Your task to perform on an android device: When is my next meeting? Image 0: 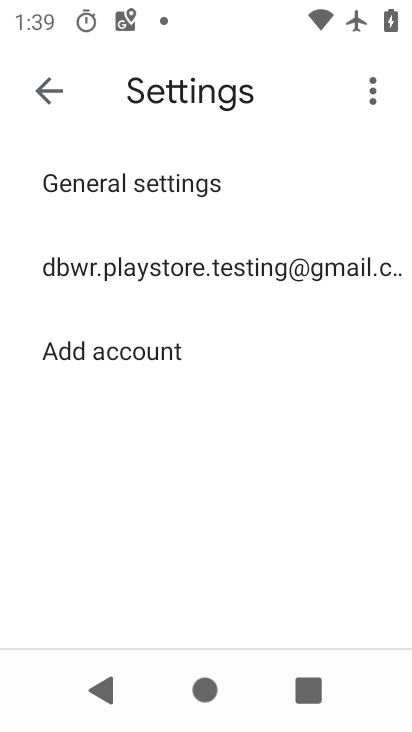
Step 0: press home button
Your task to perform on an android device: When is my next meeting? Image 1: 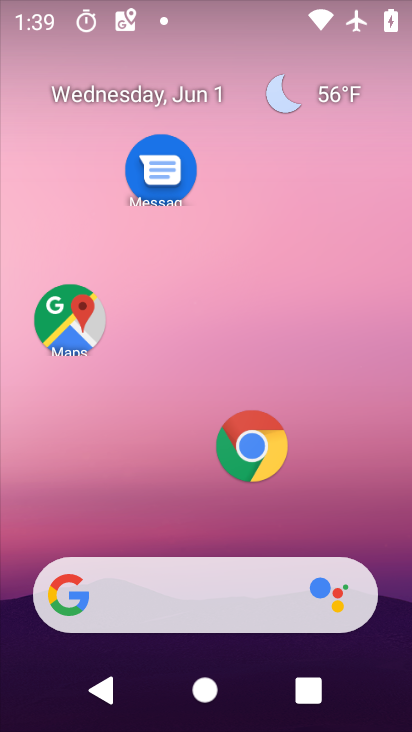
Step 1: drag from (138, 524) to (334, 98)
Your task to perform on an android device: When is my next meeting? Image 2: 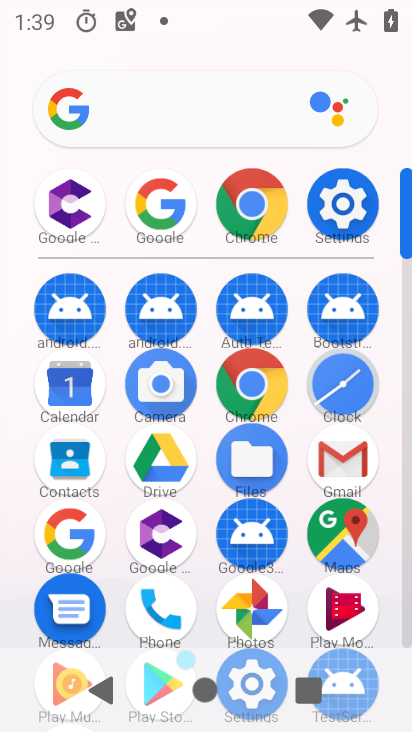
Step 2: drag from (223, 258) to (218, 107)
Your task to perform on an android device: When is my next meeting? Image 3: 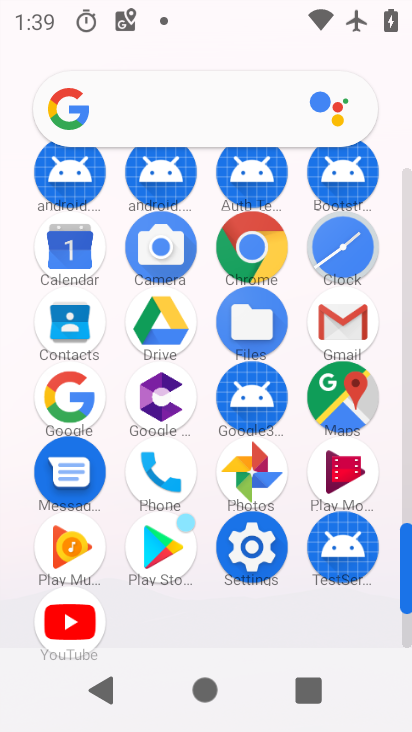
Step 3: click (66, 248)
Your task to perform on an android device: When is my next meeting? Image 4: 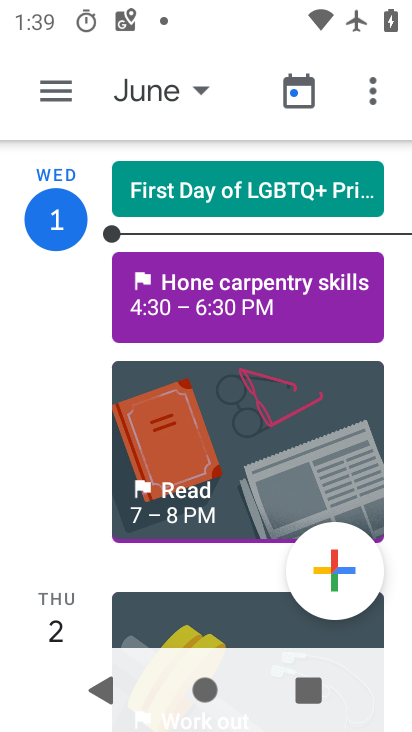
Step 4: click (67, 98)
Your task to perform on an android device: When is my next meeting? Image 5: 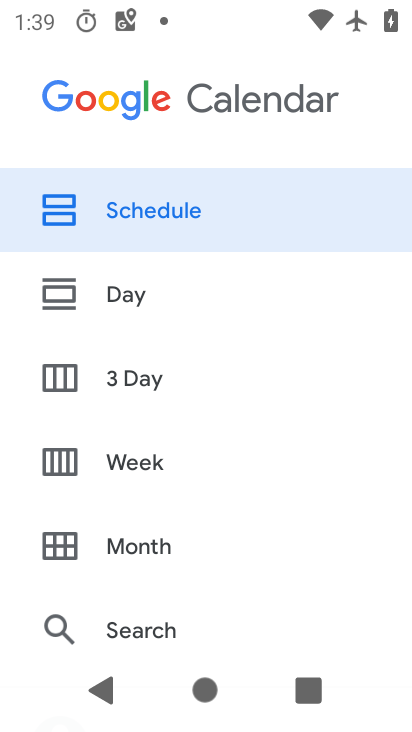
Step 5: click (167, 311)
Your task to perform on an android device: When is my next meeting? Image 6: 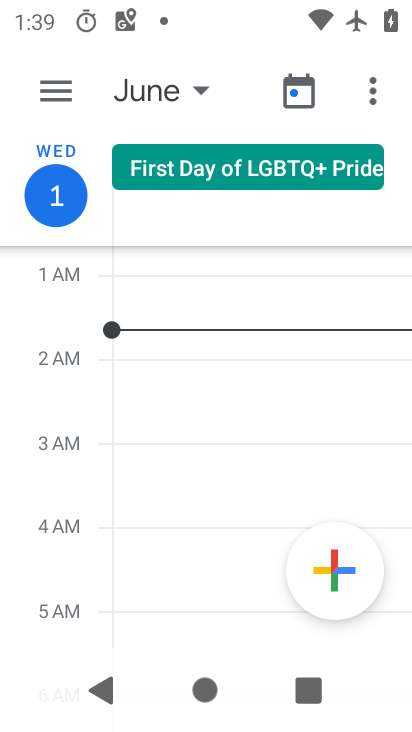
Step 6: task complete